Your task to perform on an android device: turn vacation reply on in the gmail app Image 0: 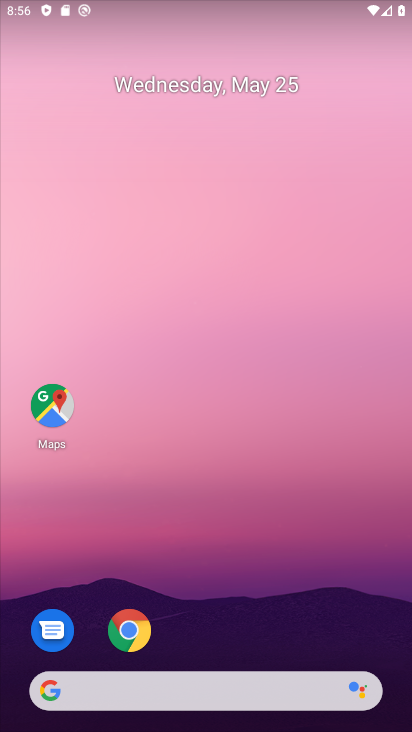
Step 0: drag from (278, 611) to (302, 144)
Your task to perform on an android device: turn vacation reply on in the gmail app Image 1: 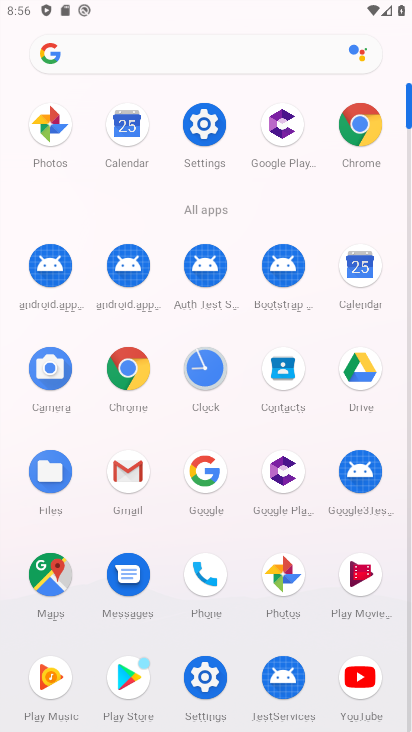
Step 1: click (127, 469)
Your task to perform on an android device: turn vacation reply on in the gmail app Image 2: 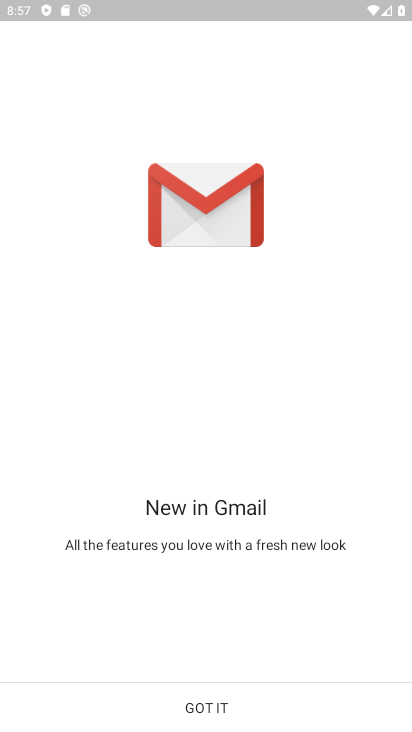
Step 2: click (198, 695)
Your task to perform on an android device: turn vacation reply on in the gmail app Image 3: 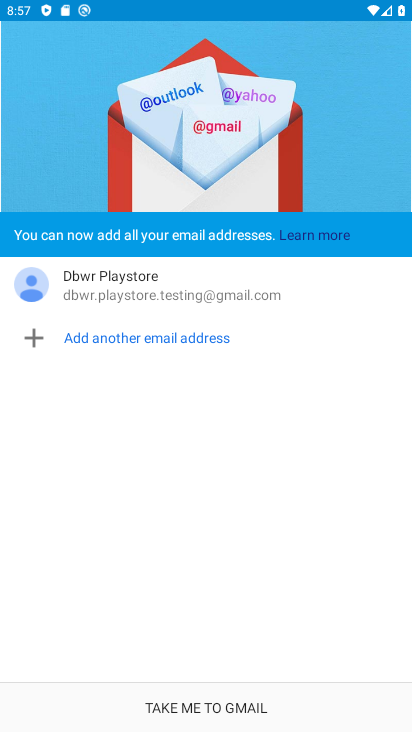
Step 3: click (171, 704)
Your task to perform on an android device: turn vacation reply on in the gmail app Image 4: 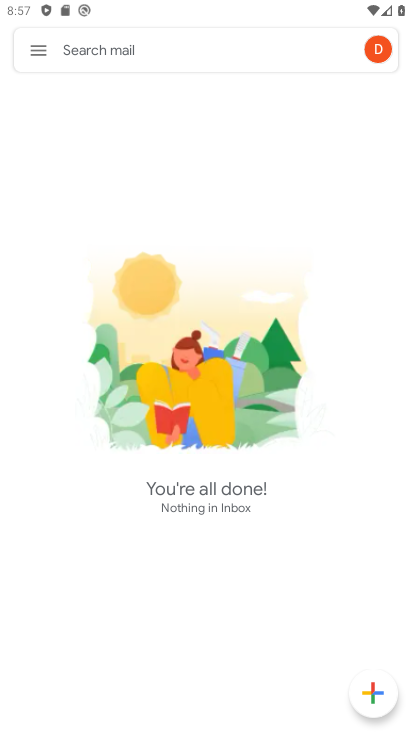
Step 4: click (42, 52)
Your task to perform on an android device: turn vacation reply on in the gmail app Image 5: 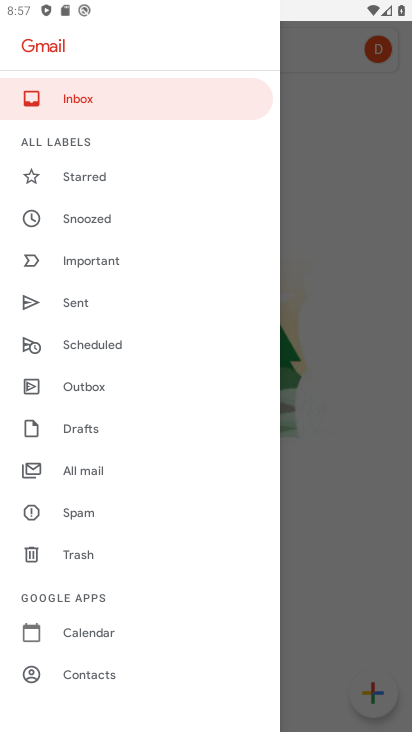
Step 5: drag from (86, 633) to (129, 386)
Your task to perform on an android device: turn vacation reply on in the gmail app Image 6: 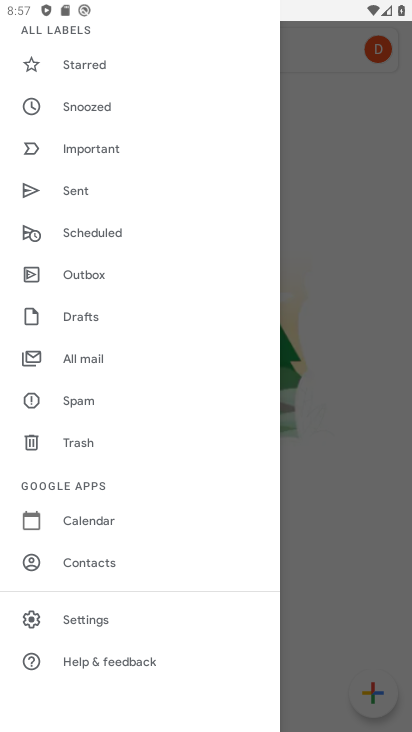
Step 6: click (120, 620)
Your task to perform on an android device: turn vacation reply on in the gmail app Image 7: 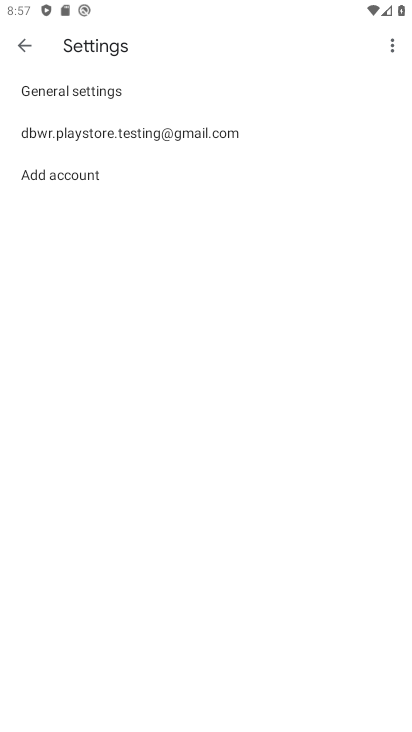
Step 7: click (148, 119)
Your task to perform on an android device: turn vacation reply on in the gmail app Image 8: 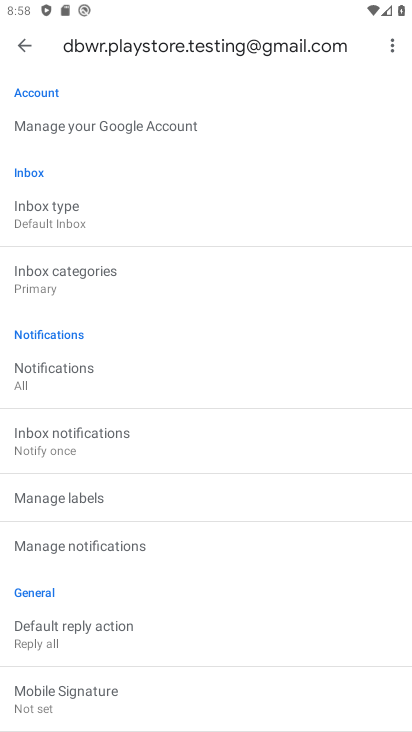
Step 8: drag from (92, 641) to (104, 258)
Your task to perform on an android device: turn vacation reply on in the gmail app Image 9: 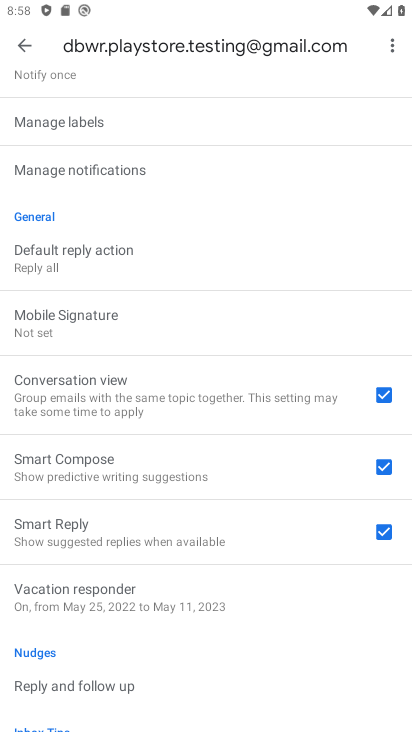
Step 9: click (182, 568)
Your task to perform on an android device: turn vacation reply on in the gmail app Image 10: 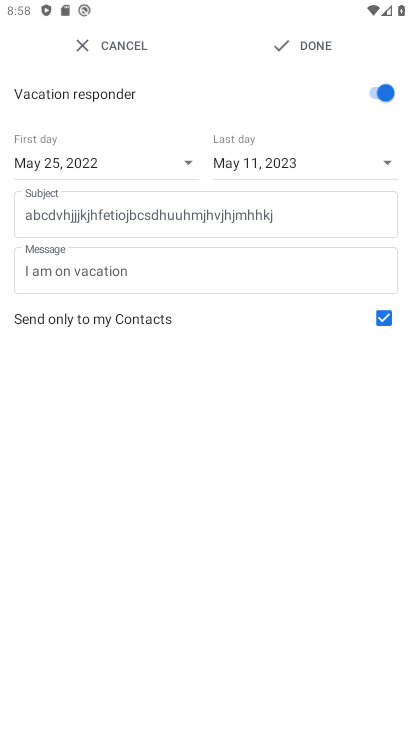
Step 10: click (324, 35)
Your task to perform on an android device: turn vacation reply on in the gmail app Image 11: 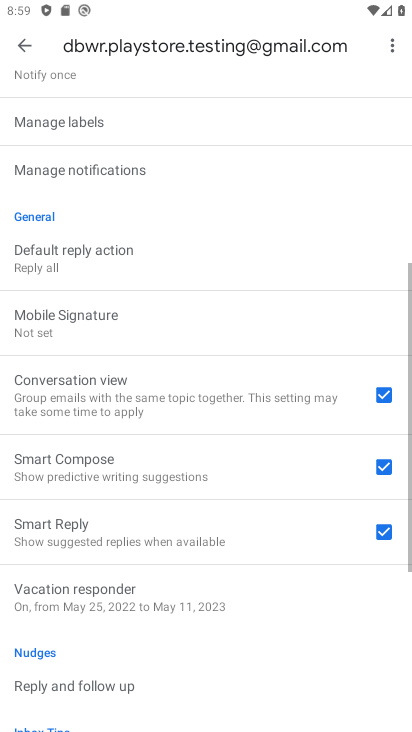
Step 11: task complete